Your task to perform on an android device: install app "Clock" Image 0: 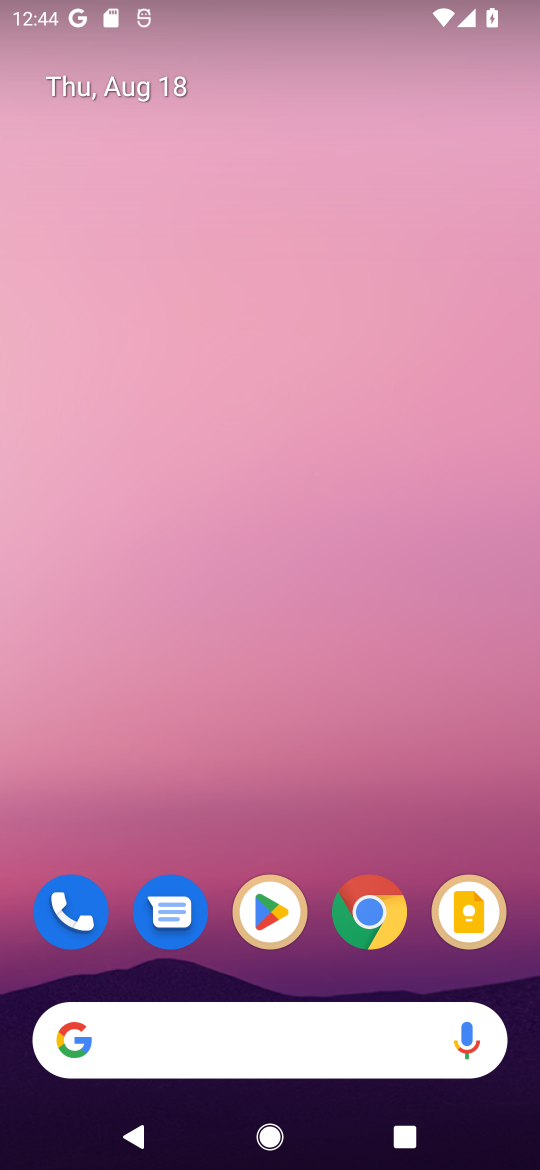
Step 0: click (278, 901)
Your task to perform on an android device: install app "Clock" Image 1: 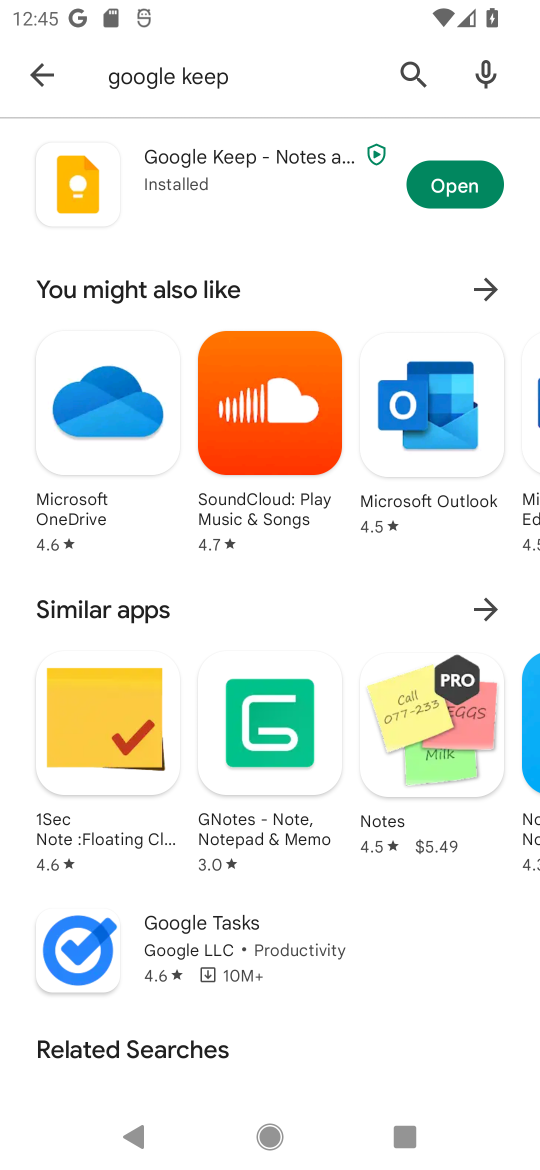
Step 1: click (402, 74)
Your task to perform on an android device: install app "Clock" Image 2: 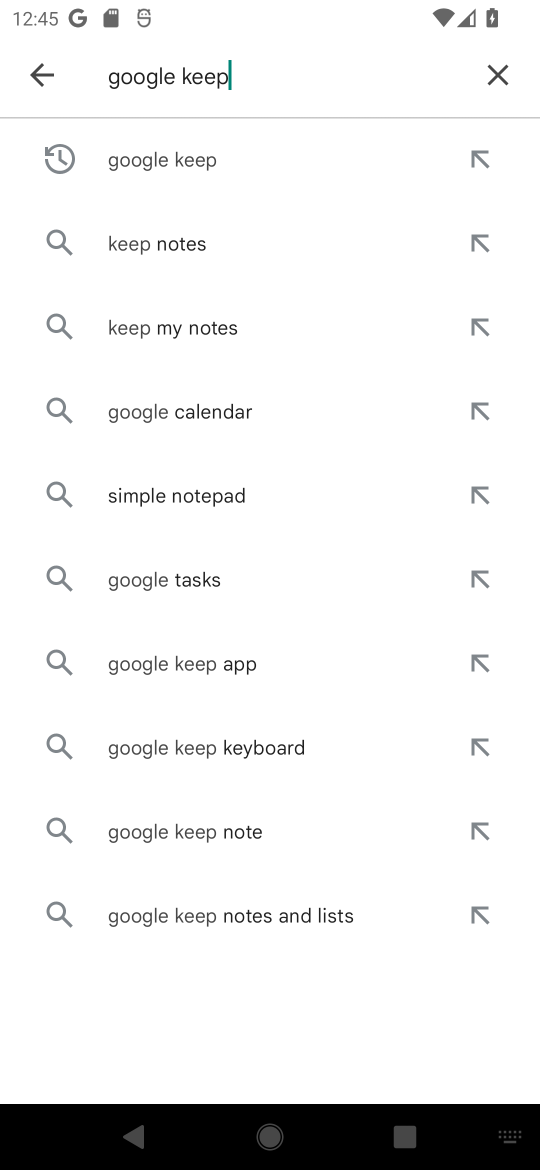
Step 2: click (506, 68)
Your task to perform on an android device: install app "Clock" Image 3: 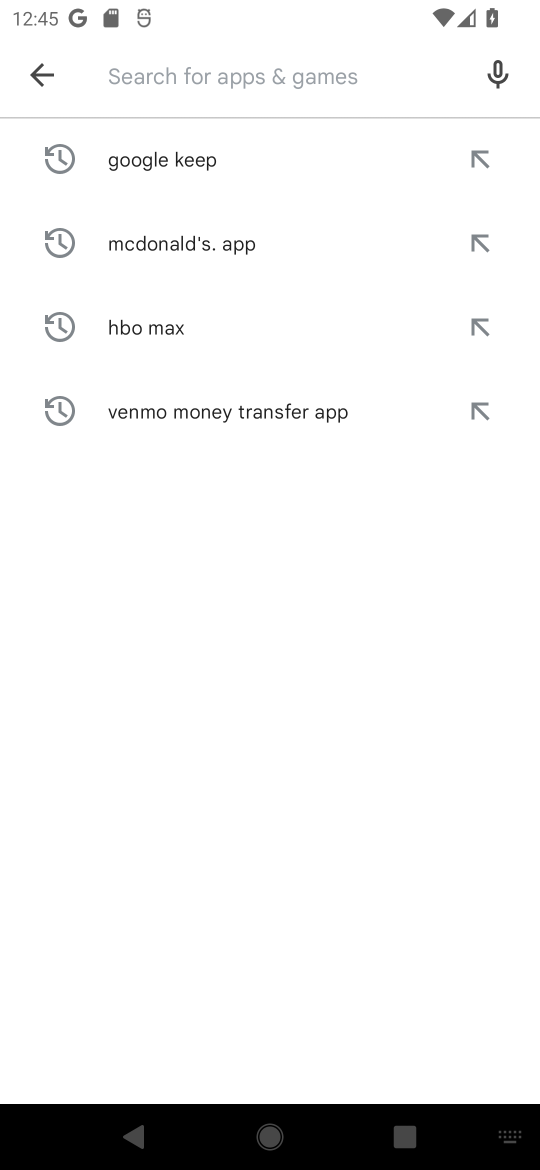
Step 3: click (180, 91)
Your task to perform on an android device: install app "Clock" Image 4: 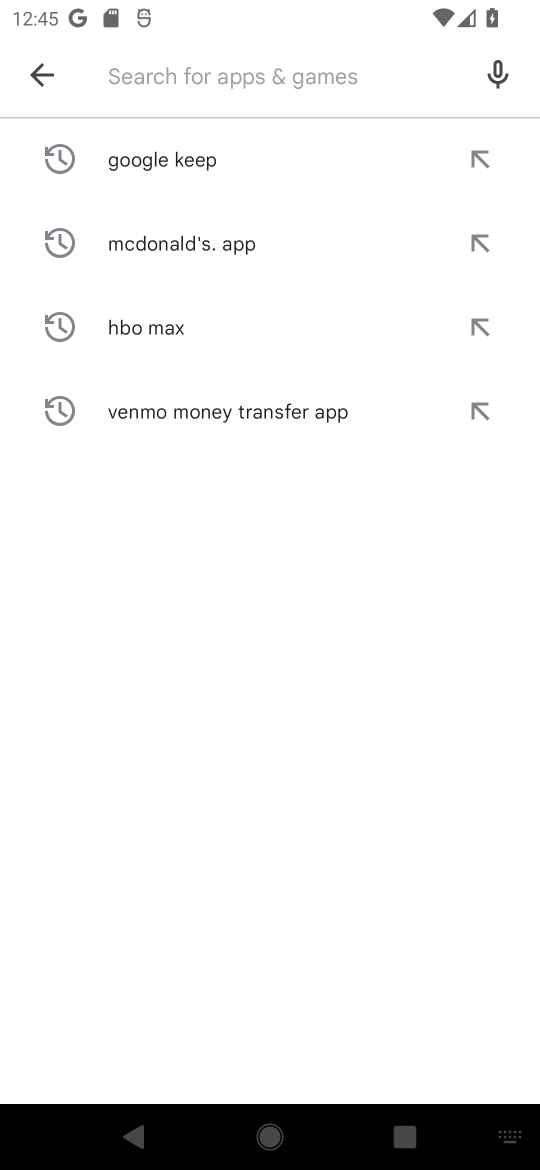
Step 4: type "clock"
Your task to perform on an android device: install app "Clock" Image 5: 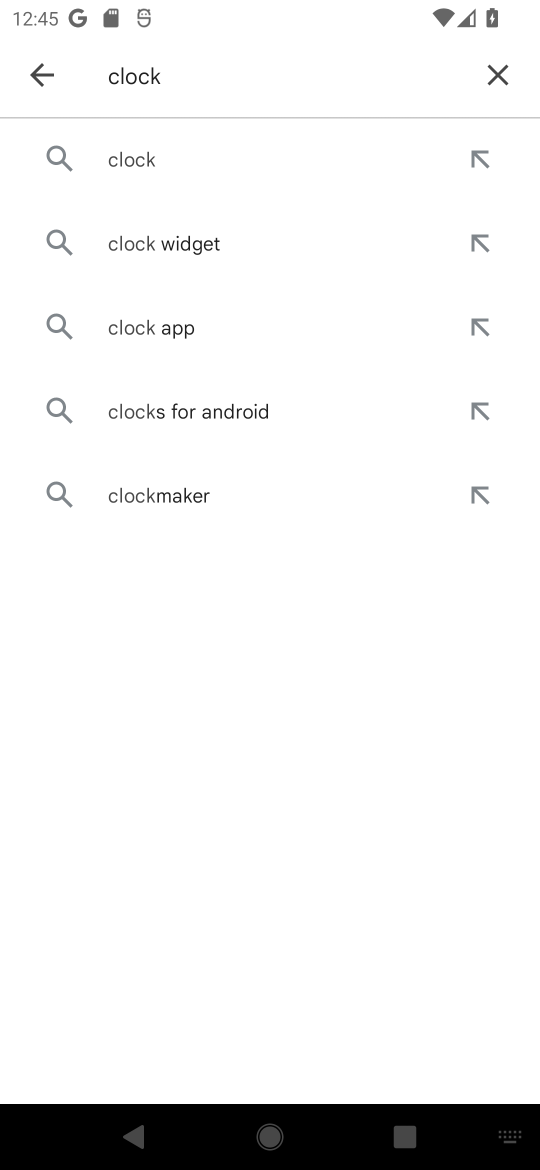
Step 5: click (223, 159)
Your task to perform on an android device: install app "Clock" Image 6: 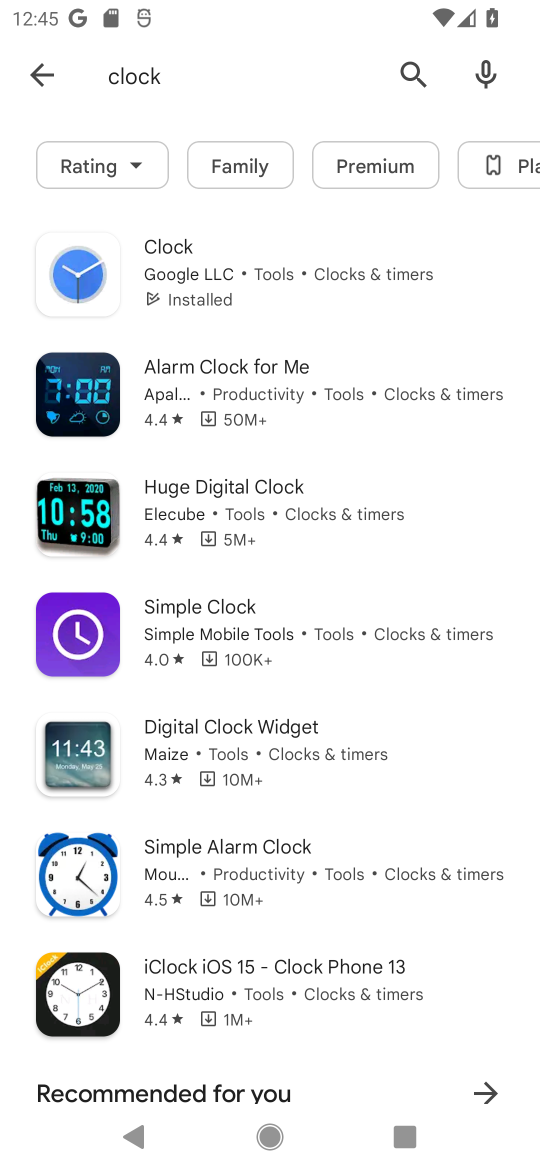
Step 6: click (152, 287)
Your task to perform on an android device: install app "Clock" Image 7: 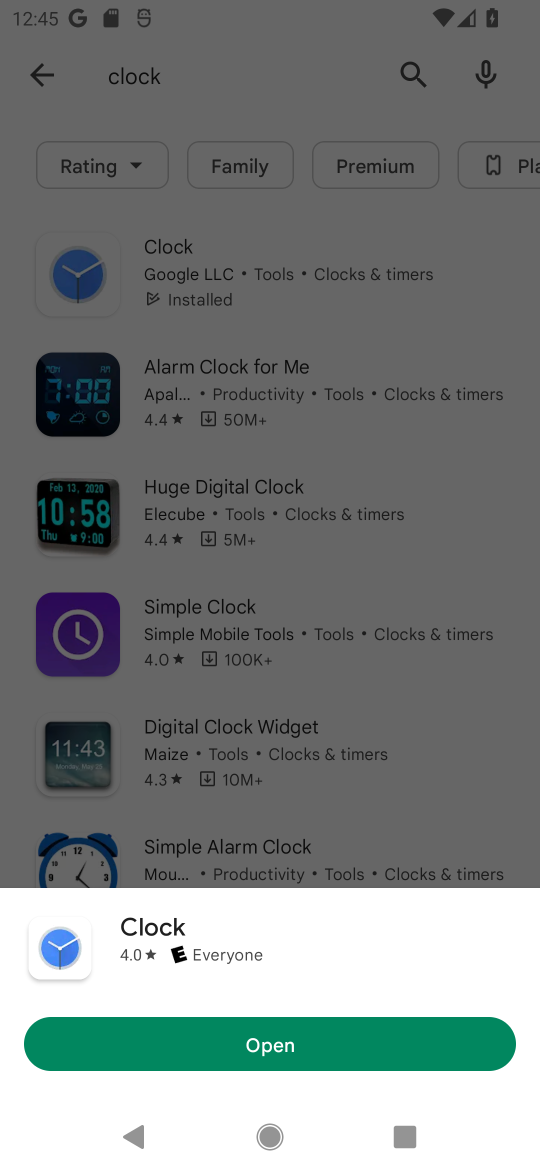
Step 7: click (220, 1059)
Your task to perform on an android device: install app "Clock" Image 8: 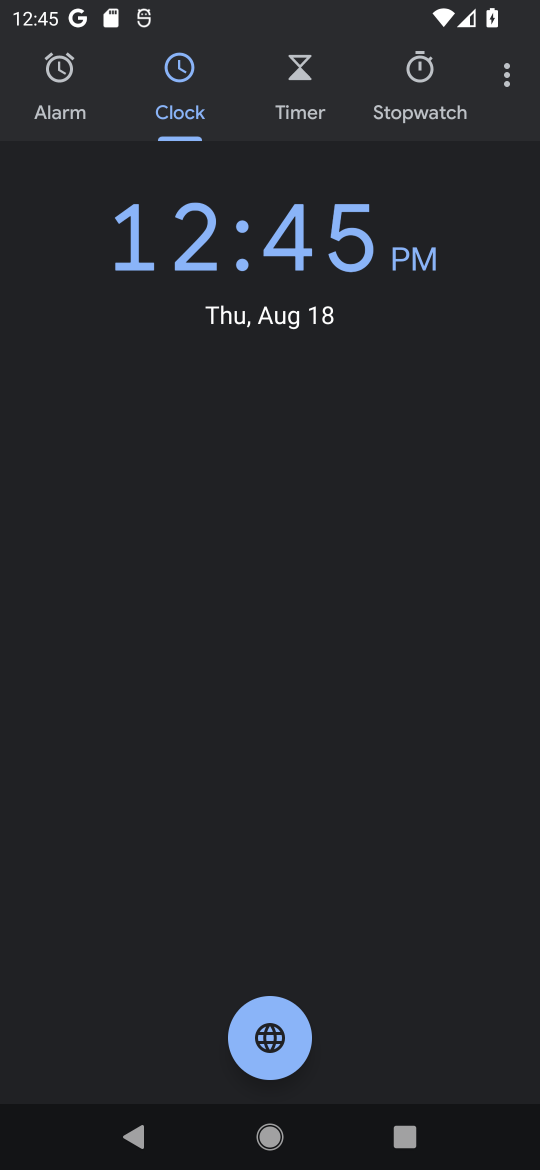
Step 8: task complete